Your task to perform on an android device: install app "Duolingo: language lessons" Image 0: 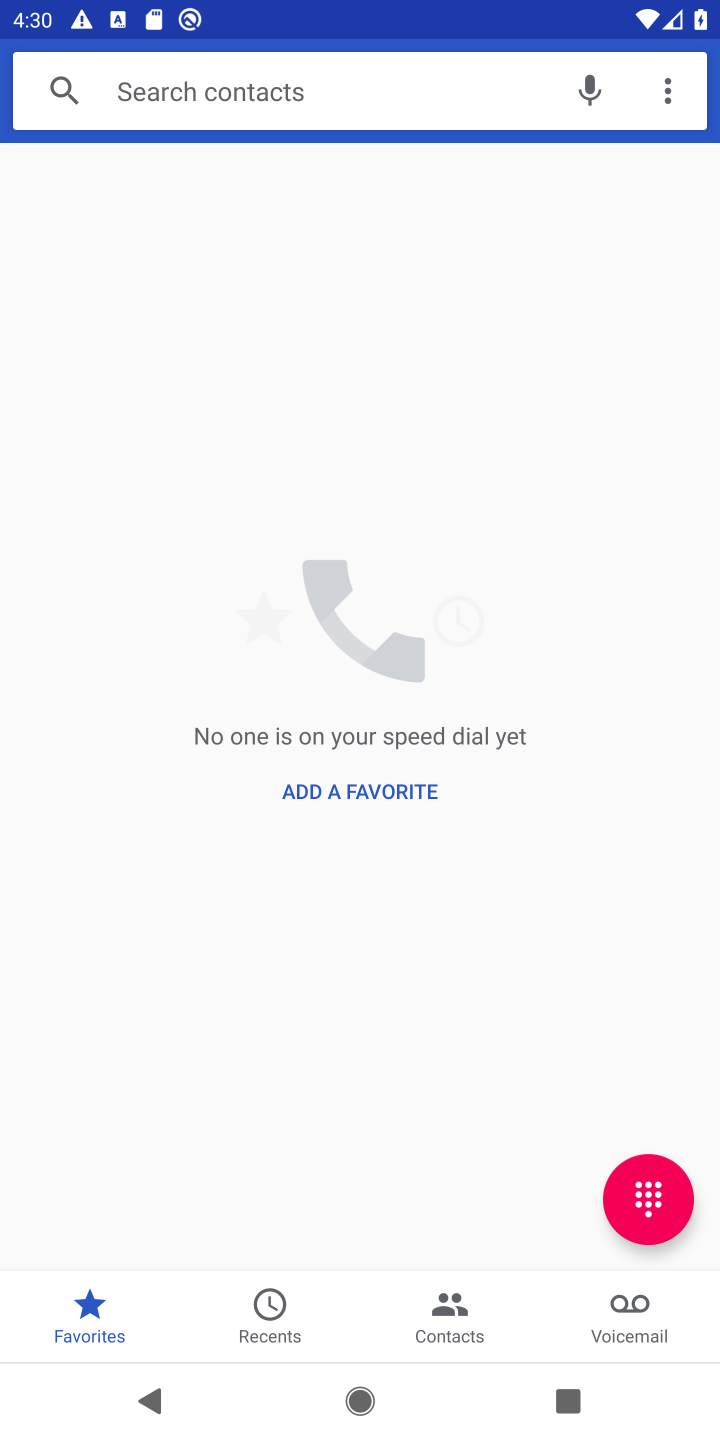
Step 0: press home button
Your task to perform on an android device: install app "Duolingo: language lessons" Image 1: 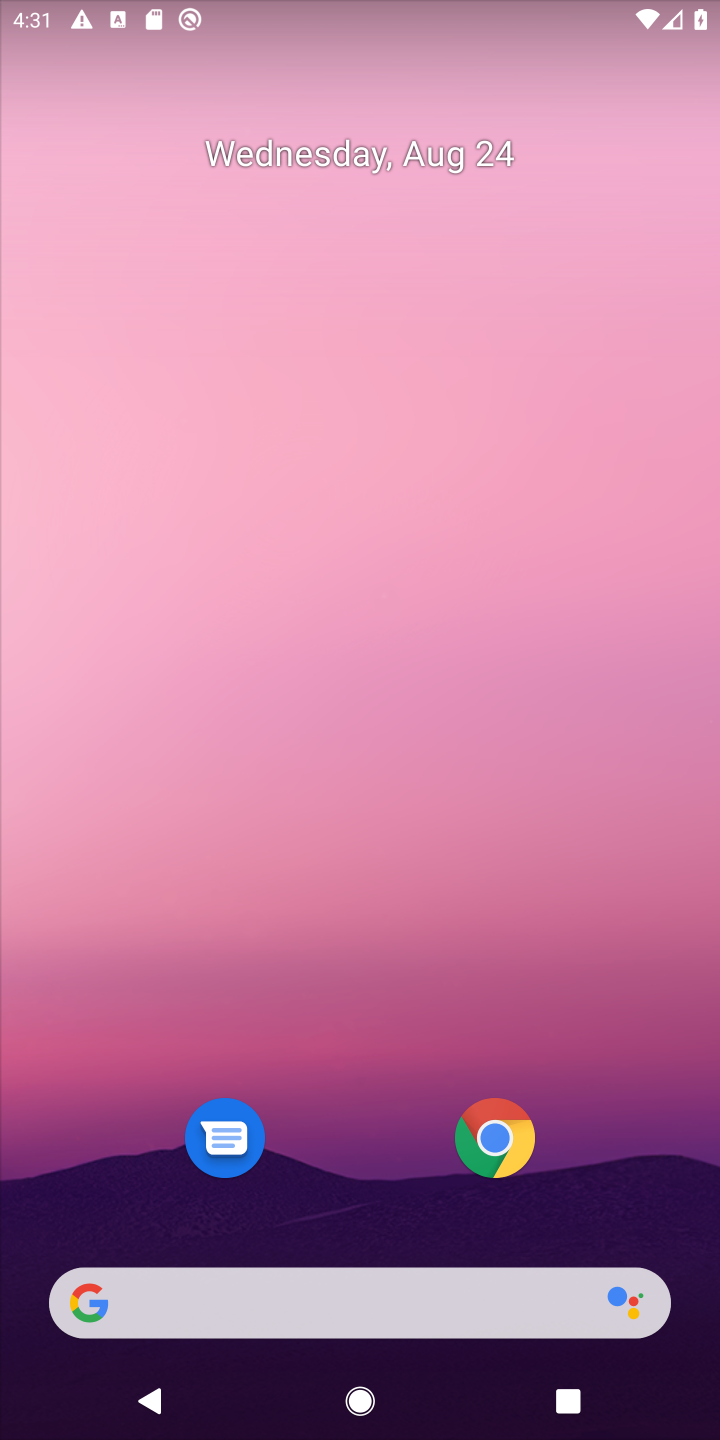
Step 1: drag from (334, 1250) to (318, 52)
Your task to perform on an android device: install app "Duolingo: language lessons" Image 2: 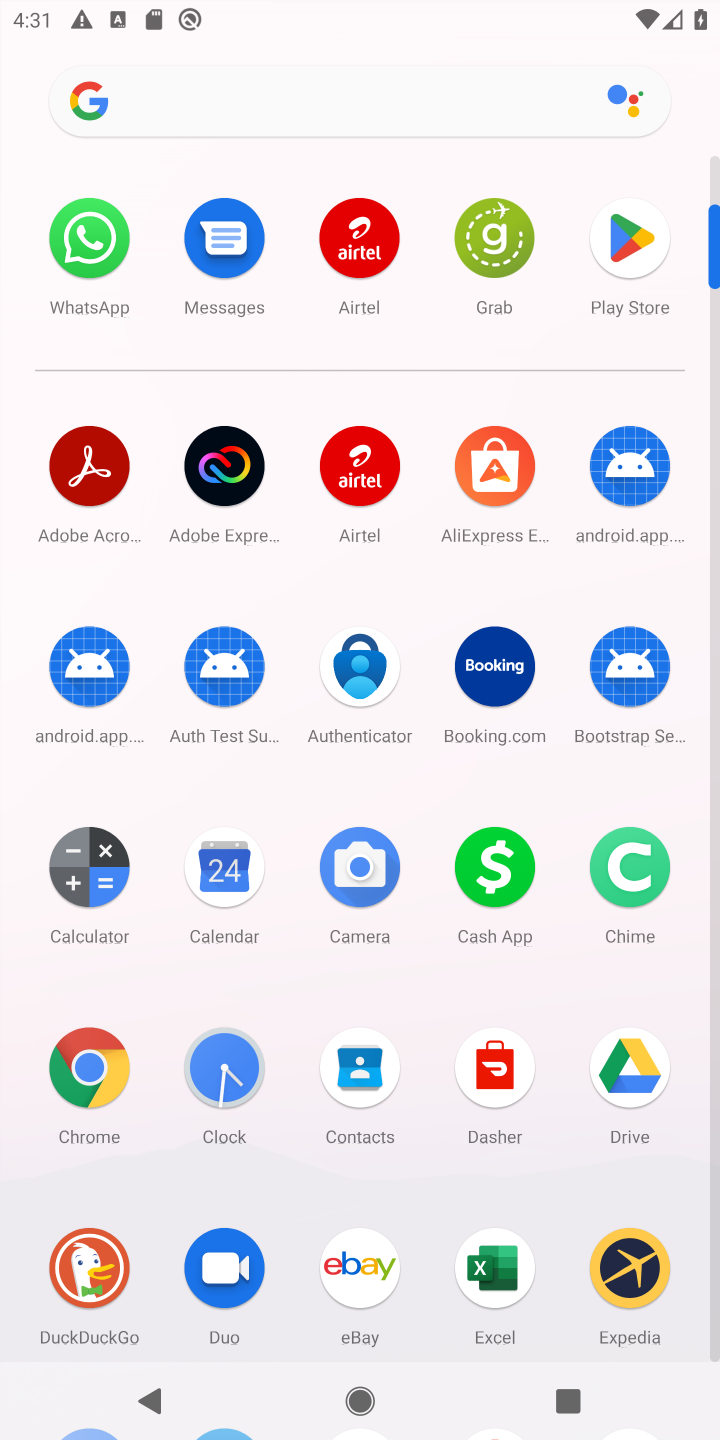
Step 2: click (632, 241)
Your task to perform on an android device: install app "Duolingo: language lessons" Image 3: 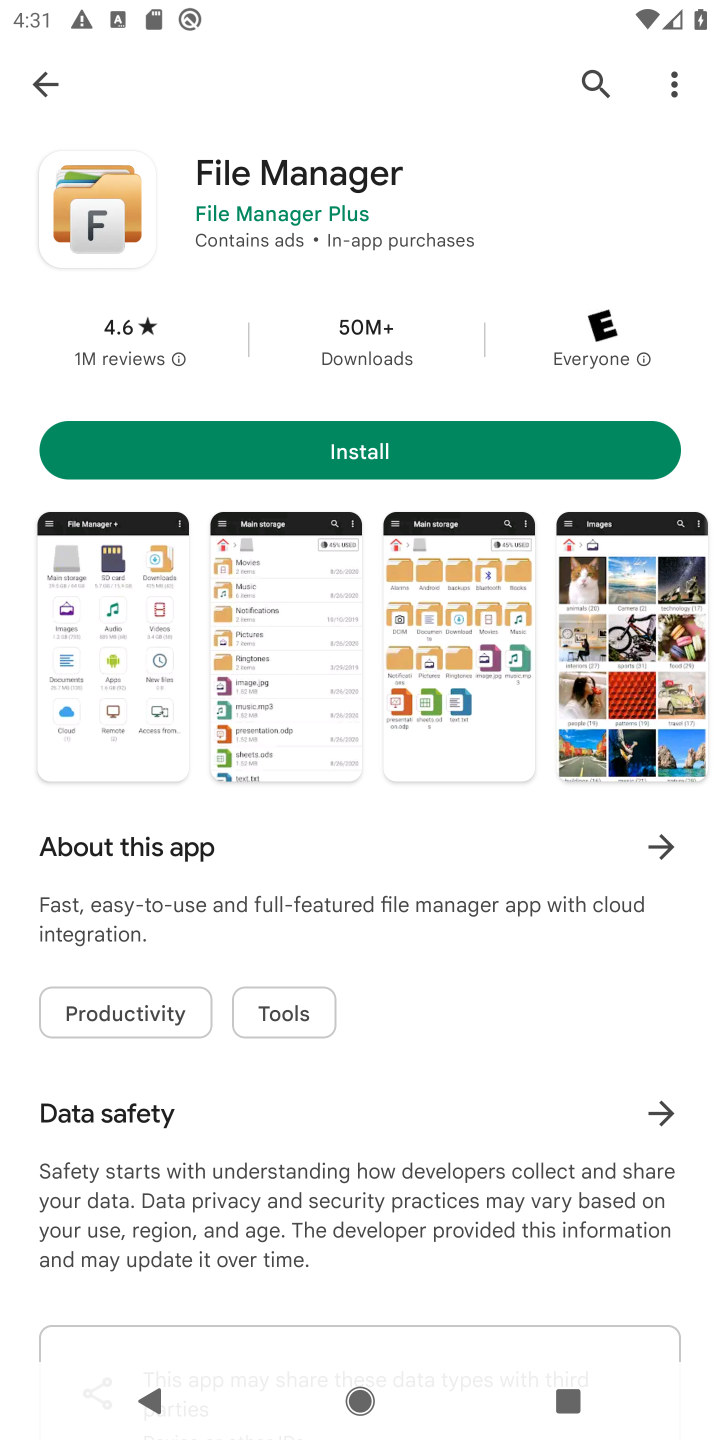
Step 3: click (590, 73)
Your task to perform on an android device: install app "Duolingo: language lessons" Image 4: 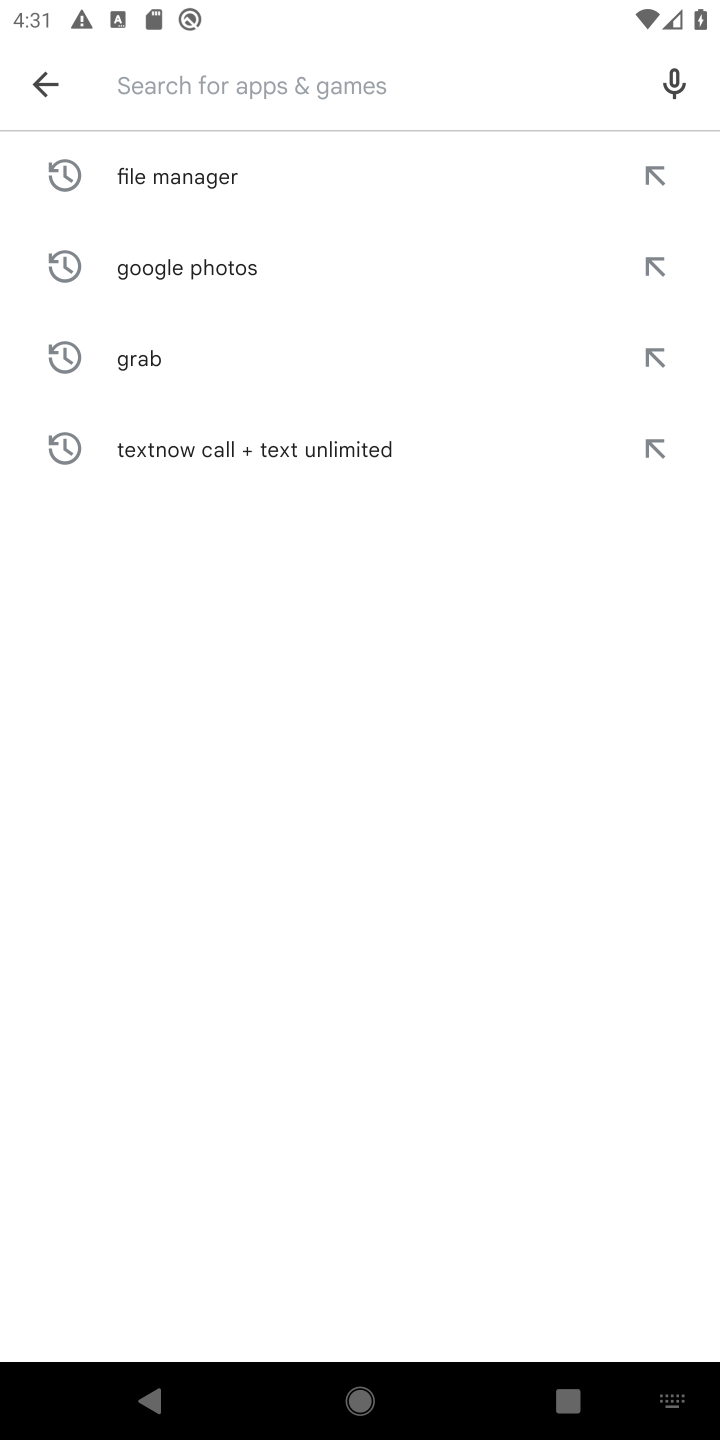
Step 4: type "Duolingo: language lessons"
Your task to perform on an android device: install app "Duolingo: language lessons" Image 5: 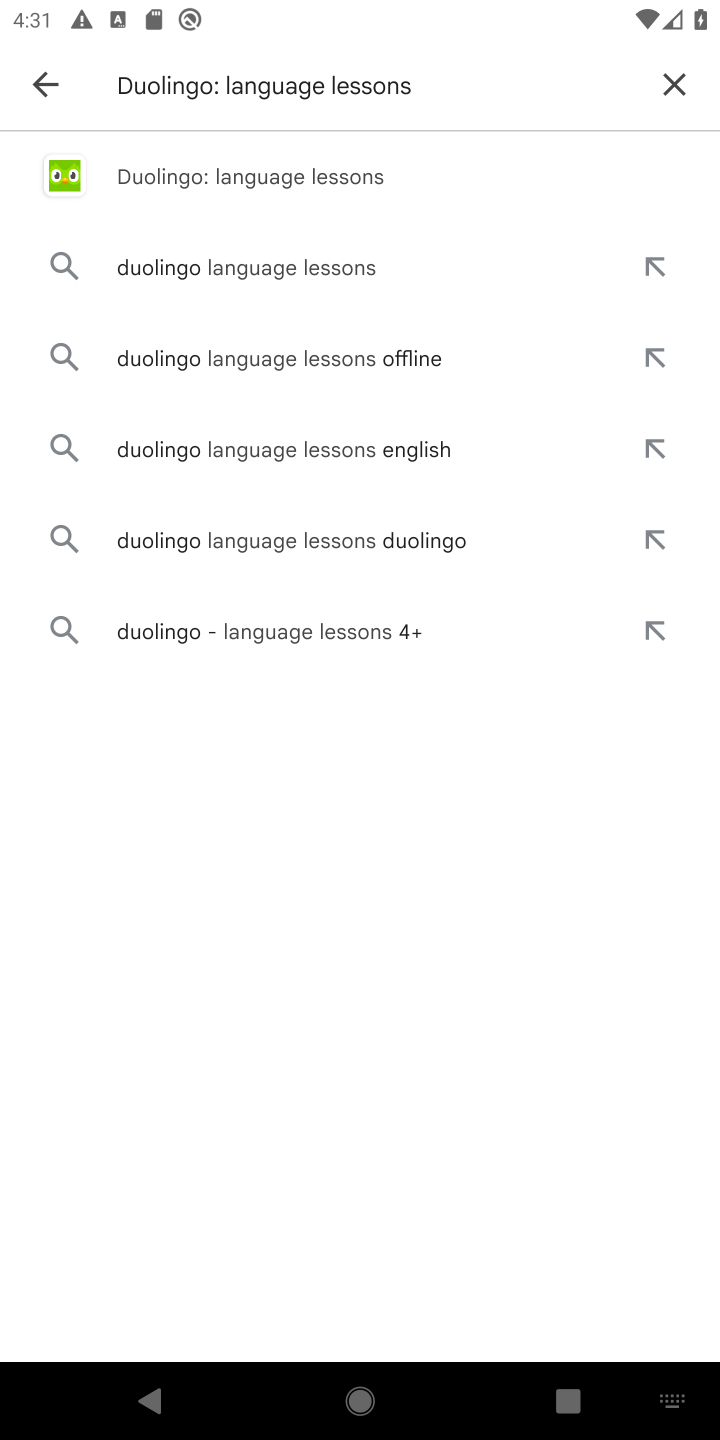
Step 5: click (347, 169)
Your task to perform on an android device: install app "Duolingo: language lessons" Image 6: 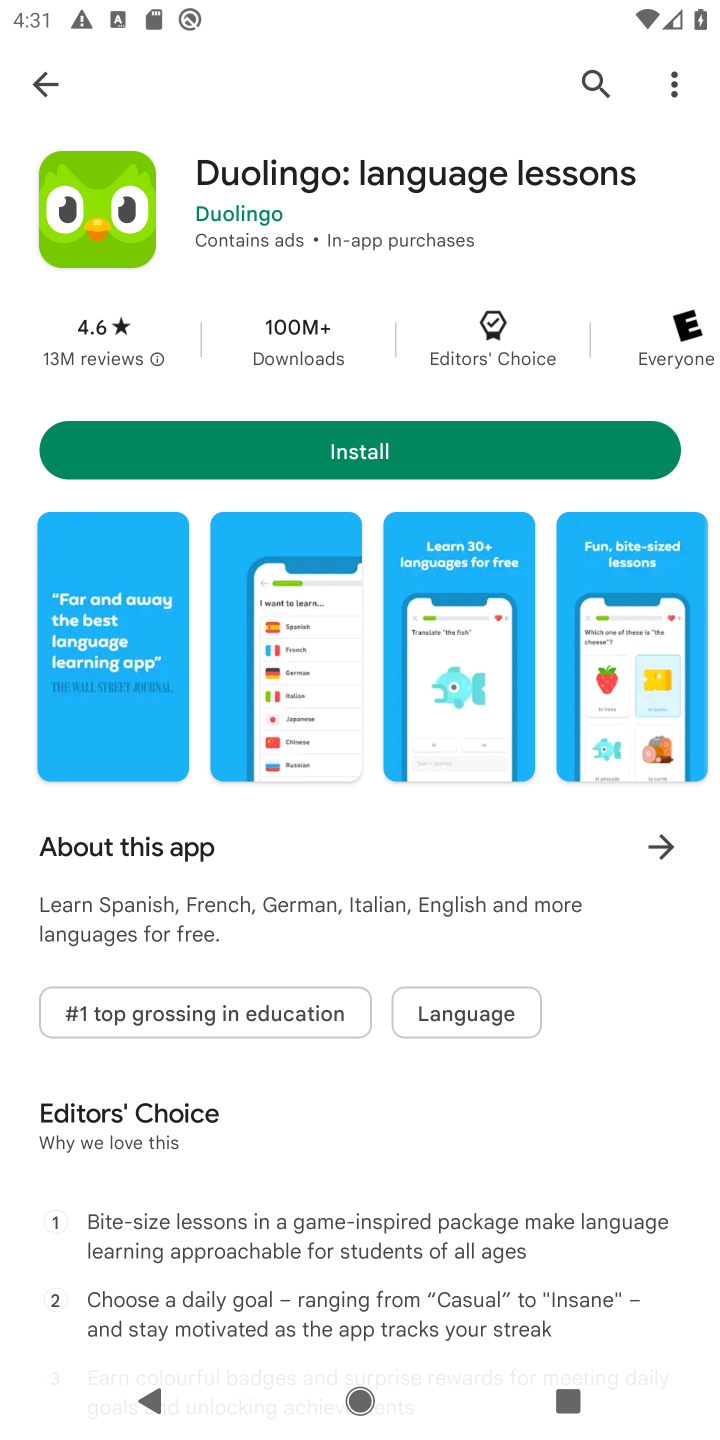
Step 6: click (360, 459)
Your task to perform on an android device: install app "Duolingo: language lessons" Image 7: 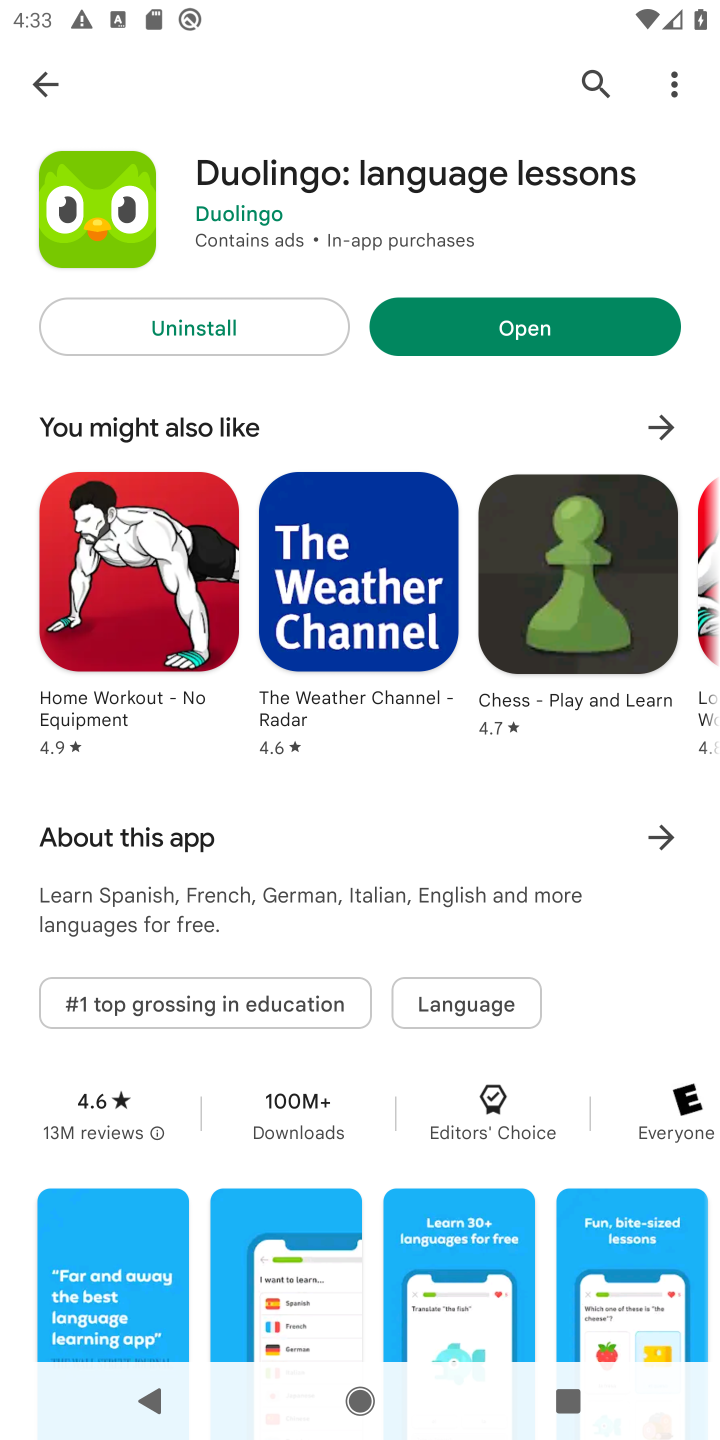
Step 7: task complete